Your task to perform on an android device: check the backup settings in the google photos Image 0: 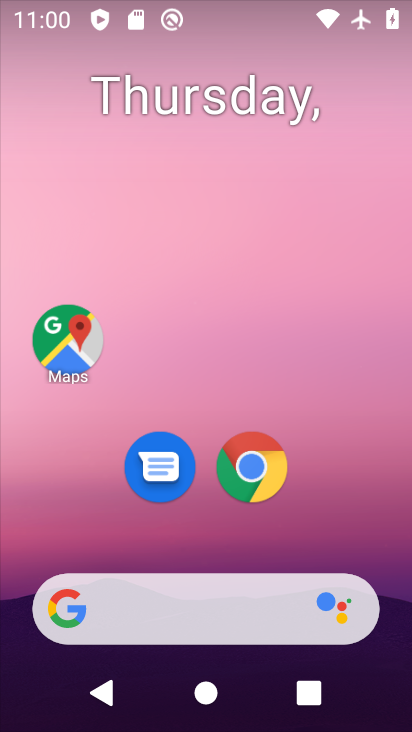
Step 0: drag from (335, 561) to (340, 8)
Your task to perform on an android device: check the backup settings in the google photos Image 1: 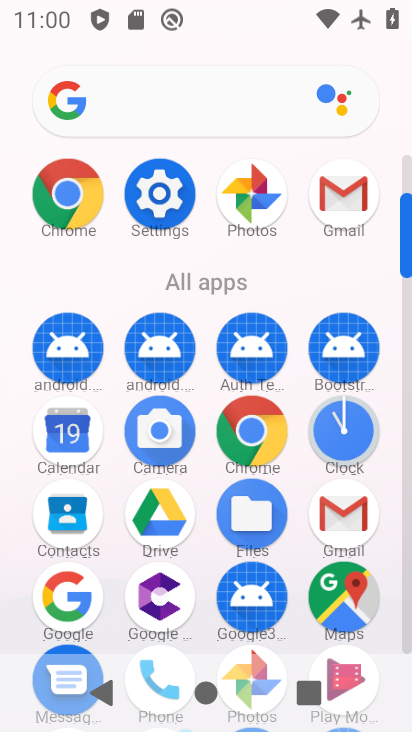
Step 1: click (252, 204)
Your task to perform on an android device: check the backup settings in the google photos Image 2: 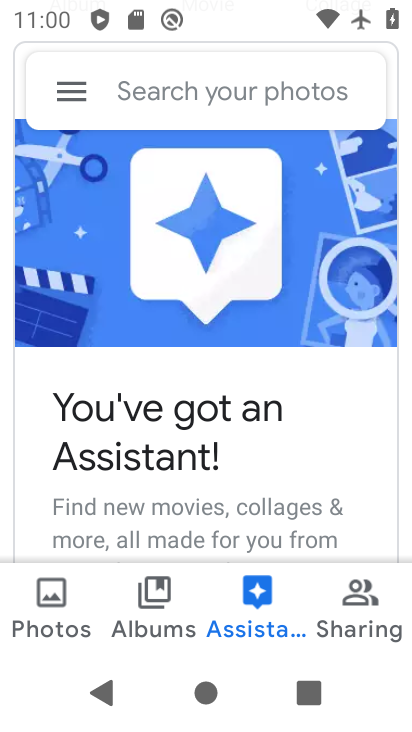
Step 2: click (67, 95)
Your task to perform on an android device: check the backup settings in the google photos Image 3: 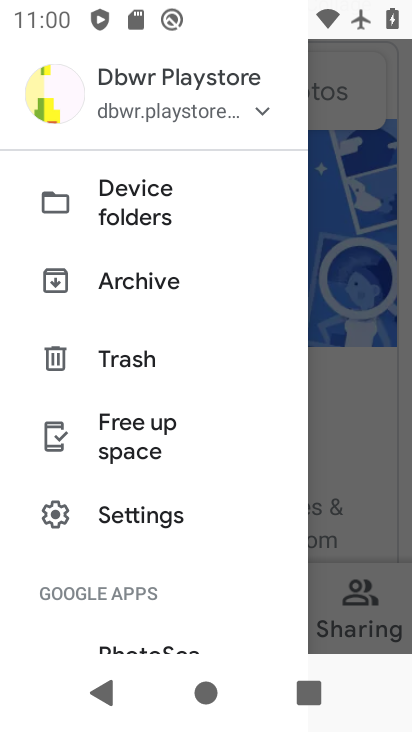
Step 3: click (159, 512)
Your task to perform on an android device: check the backup settings in the google photos Image 4: 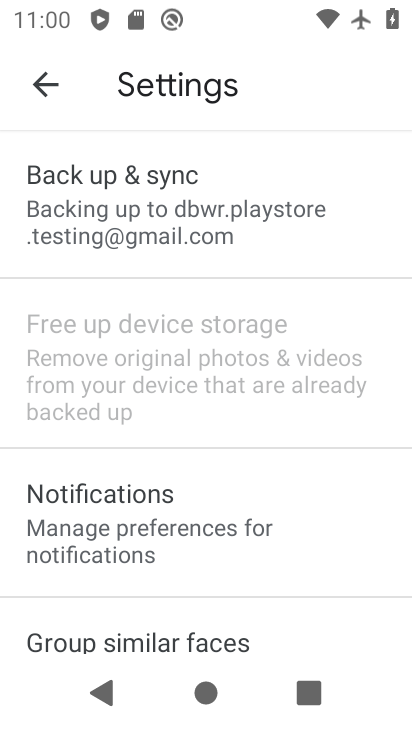
Step 4: click (121, 216)
Your task to perform on an android device: check the backup settings in the google photos Image 5: 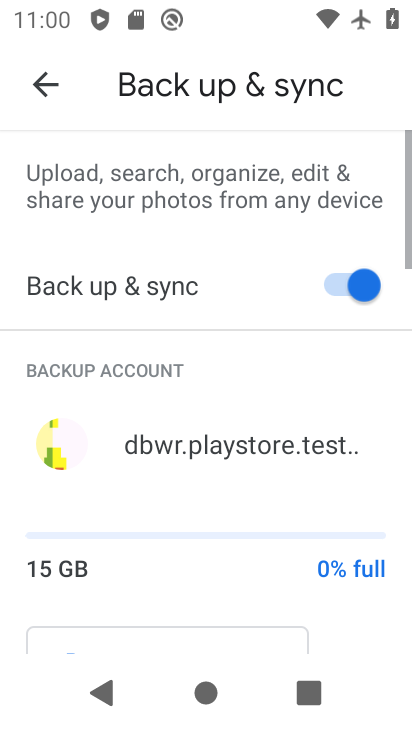
Step 5: task complete